Your task to perform on an android device: make emails show in primary in the gmail app Image 0: 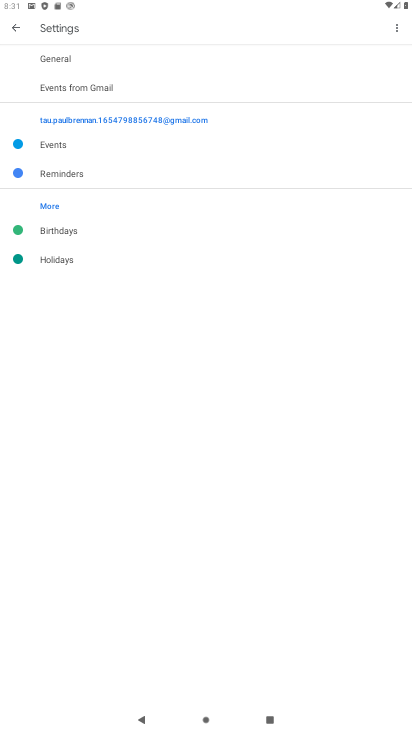
Step 0: press home button
Your task to perform on an android device: make emails show in primary in the gmail app Image 1: 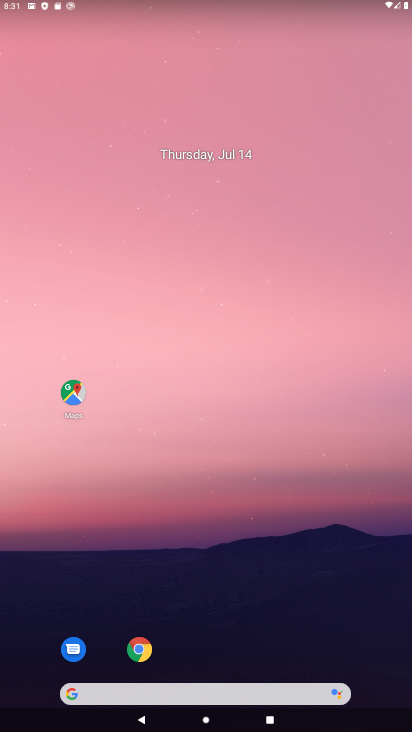
Step 1: drag from (316, 494) to (403, 14)
Your task to perform on an android device: make emails show in primary in the gmail app Image 2: 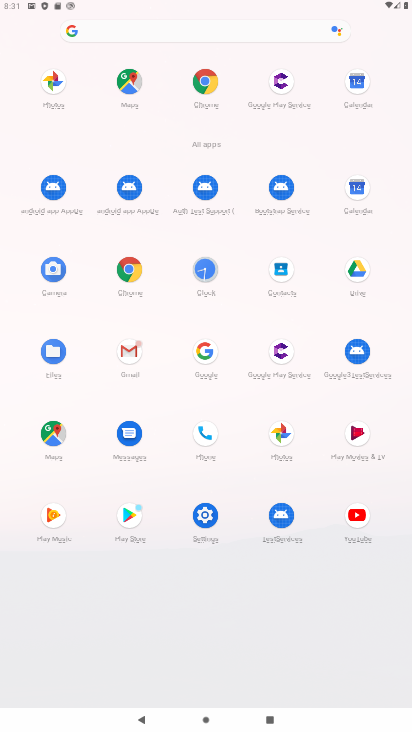
Step 2: click (130, 353)
Your task to perform on an android device: make emails show in primary in the gmail app Image 3: 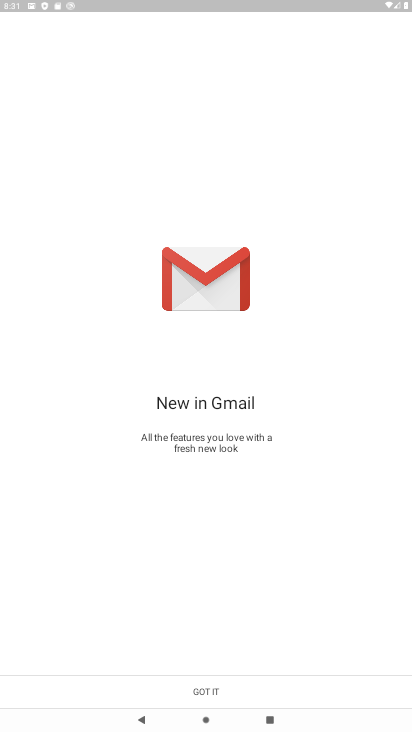
Step 3: click (208, 700)
Your task to perform on an android device: make emails show in primary in the gmail app Image 4: 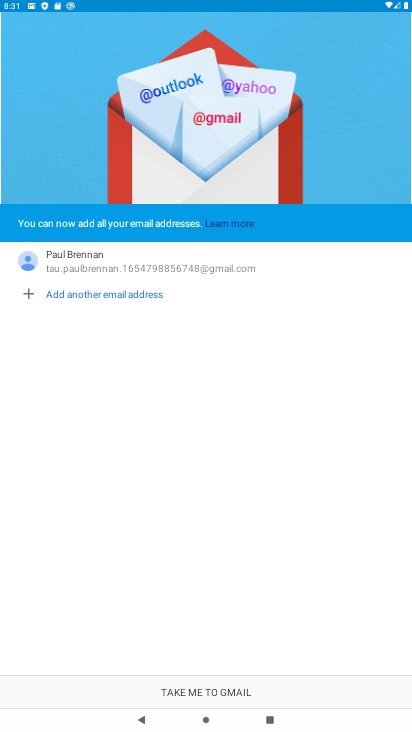
Step 4: click (208, 699)
Your task to perform on an android device: make emails show in primary in the gmail app Image 5: 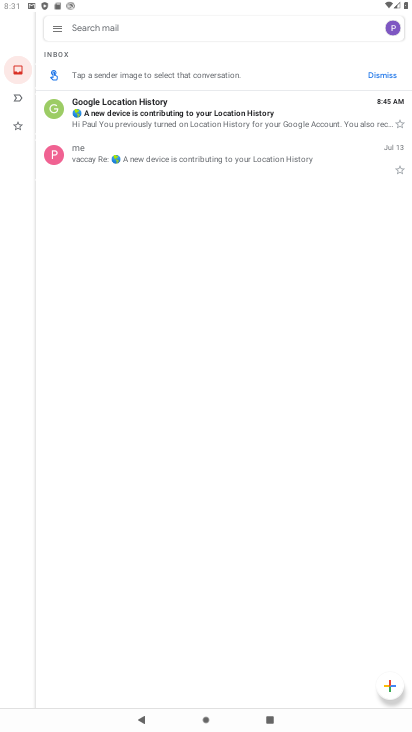
Step 5: click (56, 32)
Your task to perform on an android device: make emails show in primary in the gmail app Image 6: 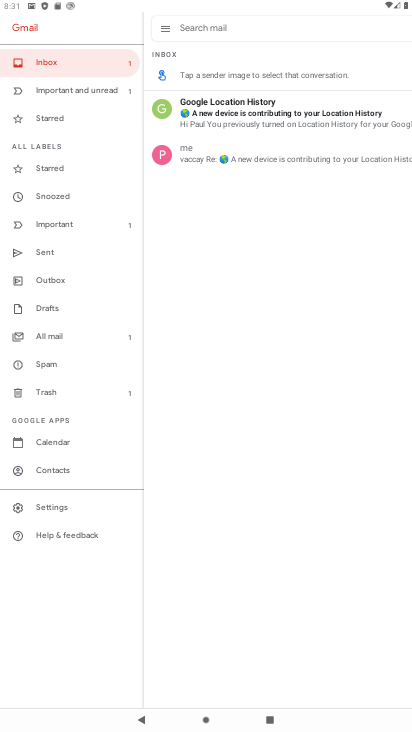
Step 6: click (35, 507)
Your task to perform on an android device: make emails show in primary in the gmail app Image 7: 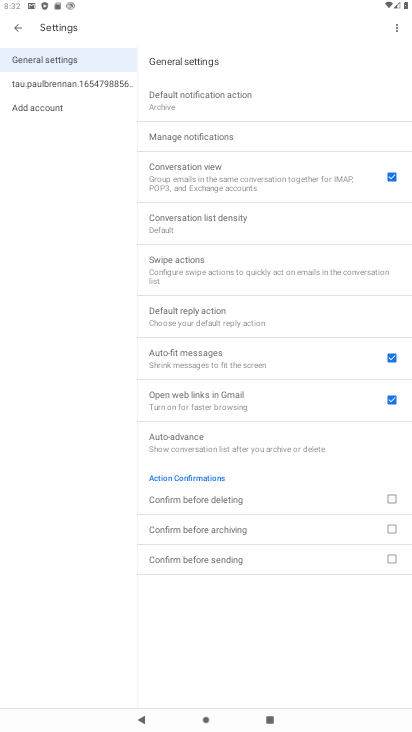
Step 7: click (57, 85)
Your task to perform on an android device: make emails show in primary in the gmail app Image 8: 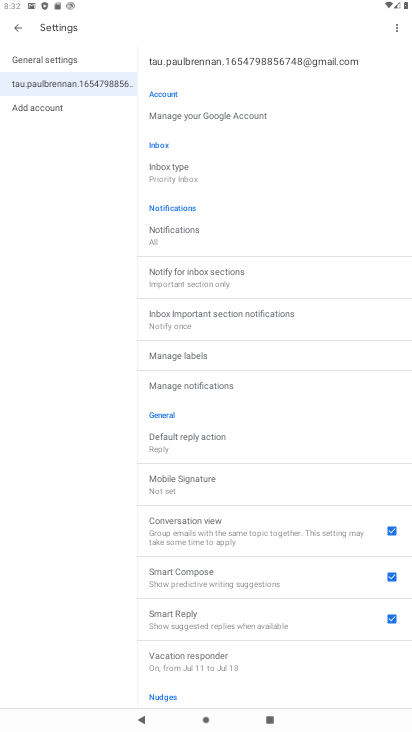
Step 8: click (158, 175)
Your task to perform on an android device: make emails show in primary in the gmail app Image 9: 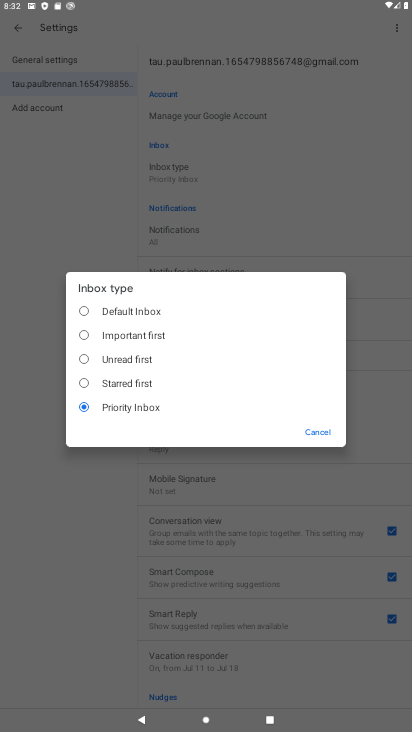
Step 9: click (124, 309)
Your task to perform on an android device: make emails show in primary in the gmail app Image 10: 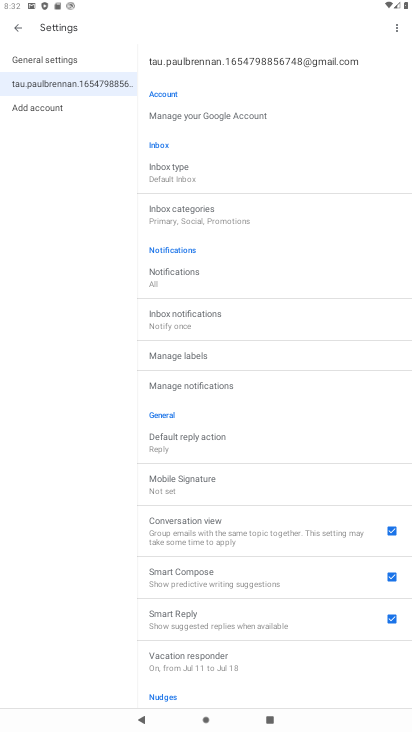
Step 10: task complete